Your task to perform on an android device: Open Yahoo.com Image 0: 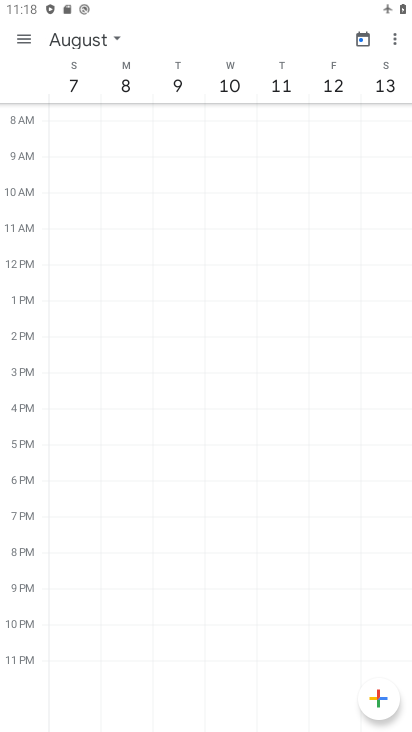
Step 0: press home button
Your task to perform on an android device: Open Yahoo.com Image 1: 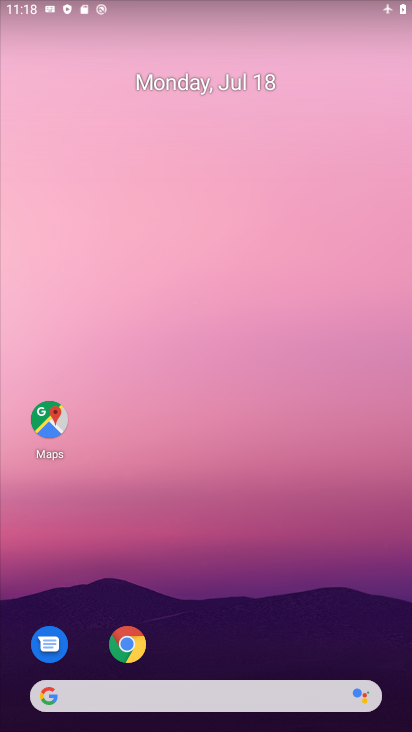
Step 1: drag from (177, 670) to (175, 108)
Your task to perform on an android device: Open Yahoo.com Image 2: 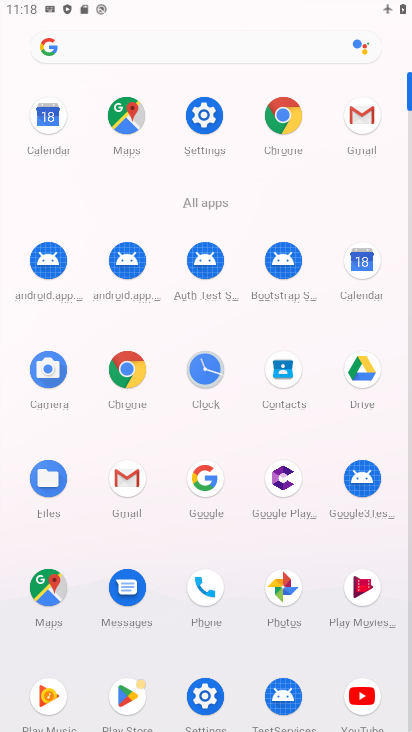
Step 2: click (138, 382)
Your task to perform on an android device: Open Yahoo.com Image 3: 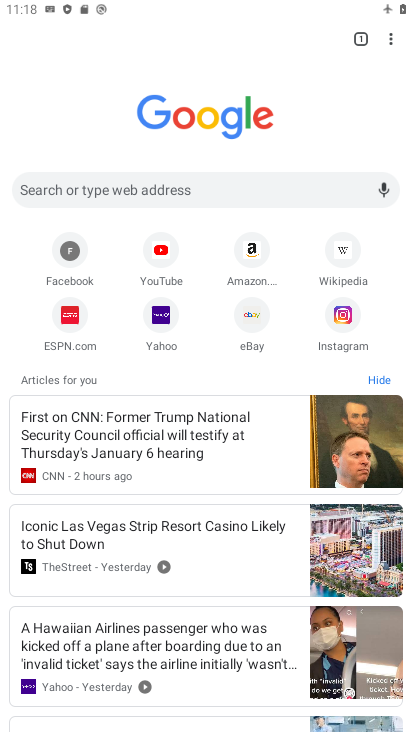
Step 3: click (151, 329)
Your task to perform on an android device: Open Yahoo.com Image 4: 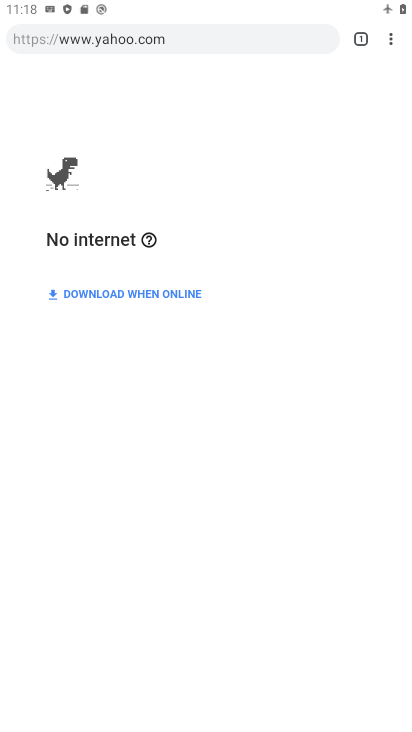
Step 4: task complete